Your task to perform on an android device: Show me popular videos on Youtube Image 0: 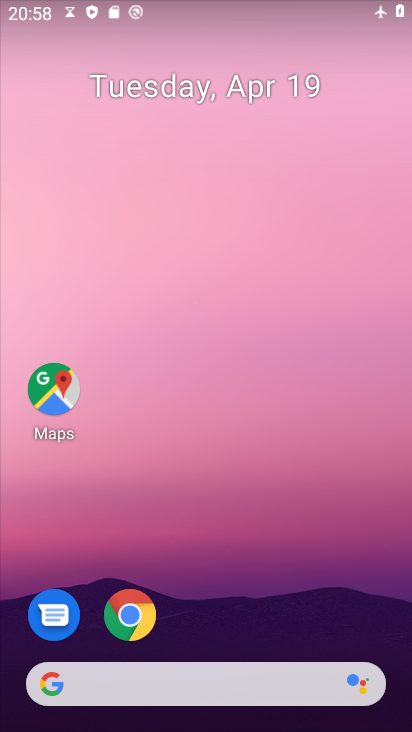
Step 0: drag from (397, 708) to (354, 11)
Your task to perform on an android device: Show me popular videos on Youtube Image 1: 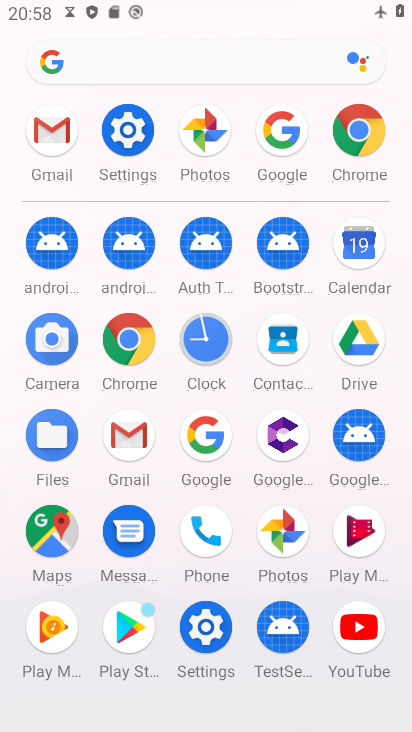
Step 1: click (356, 629)
Your task to perform on an android device: Show me popular videos on Youtube Image 2: 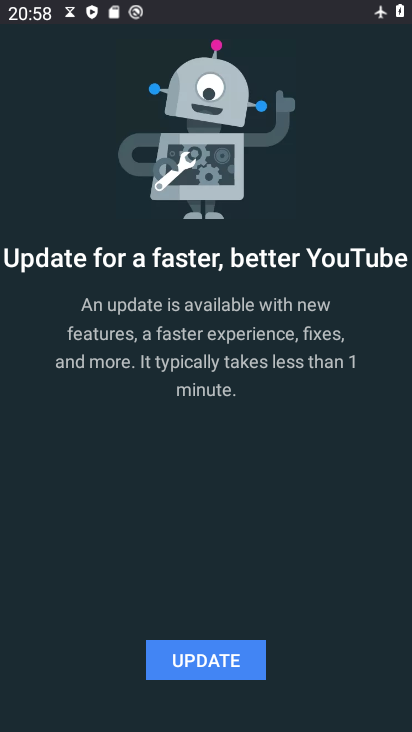
Step 2: click (194, 646)
Your task to perform on an android device: Show me popular videos on Youtube Image 3: 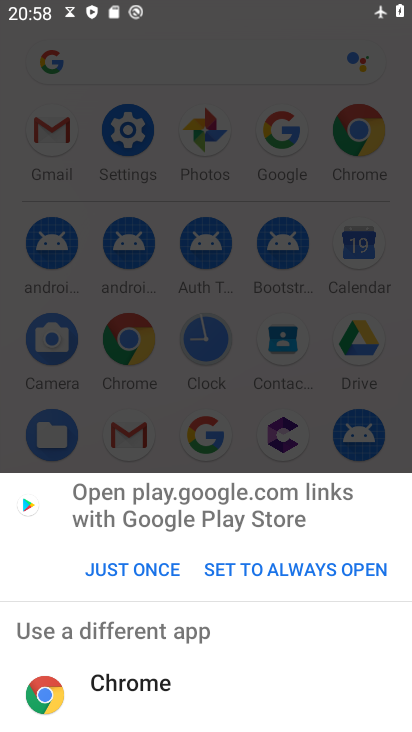
Step 3: click (119, 568)
Your task to perform on an android device: Show me popular videos on Youtube Image 4: 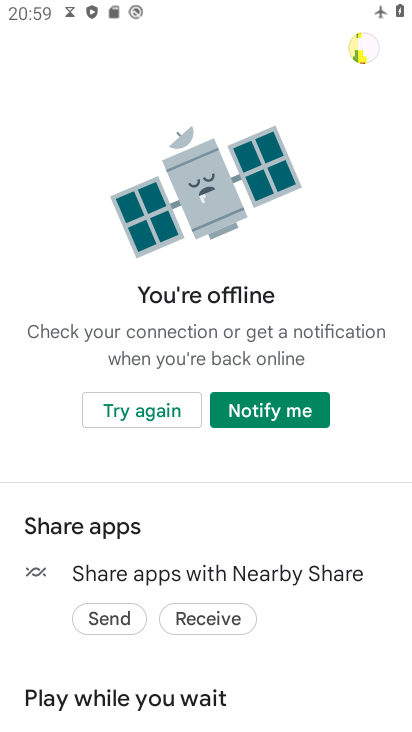
Step 4: press back button
Your task to perform on an android device: Show me popular videos on Youtube Image 5: 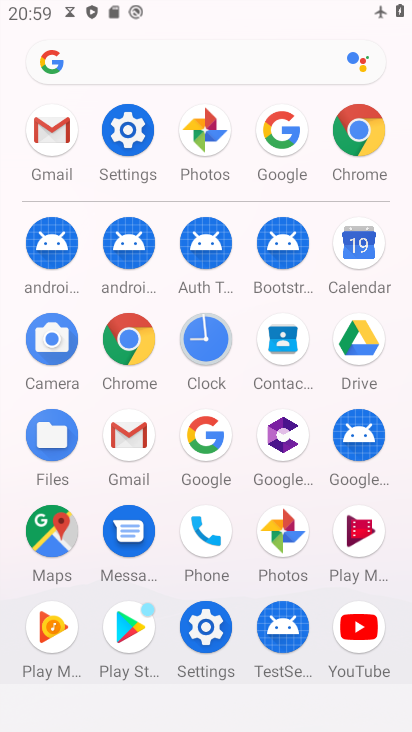
Step 5: click (357, 616)
Your task to perform on an android device: Show me popular videos on Youtube Image 6: 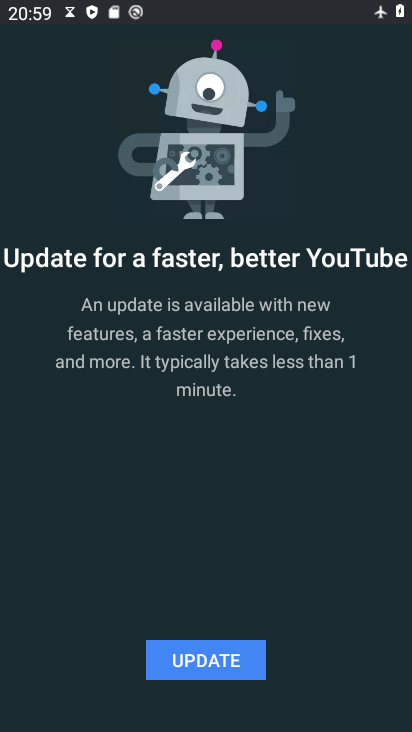
Step 6: task complete